Your task to perform on an android device: find snoozed emails in the gmail app Image 0: 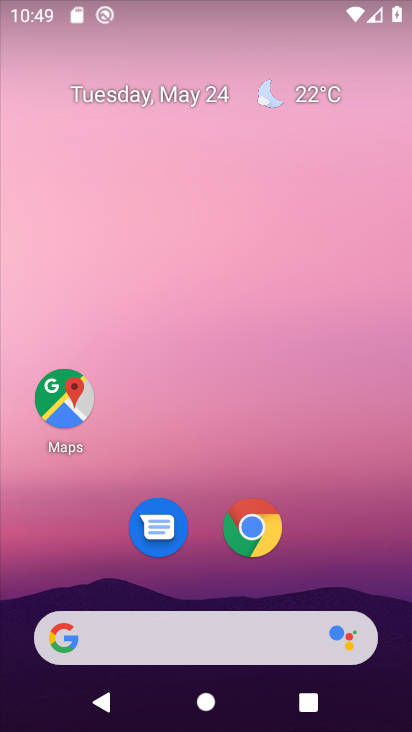
Step 0: press home button
Your task to perform on an android device: find snoozed emails in the gmail app Image 1: 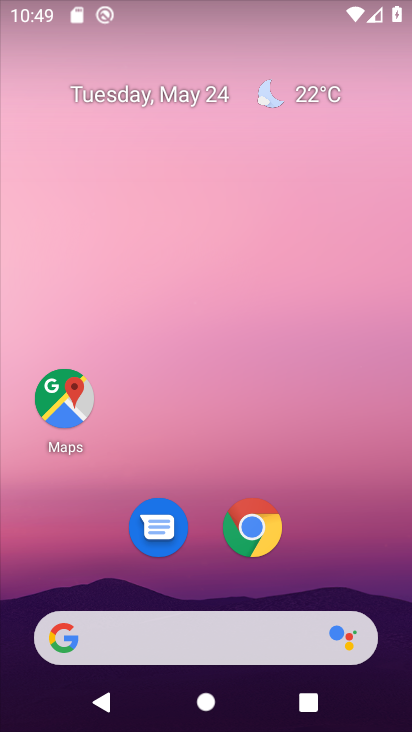
Step 1: drag from (189, 626) to (351, 129)
Your task to perform on an android device: find snoozed emails in the gmail app Image 2: 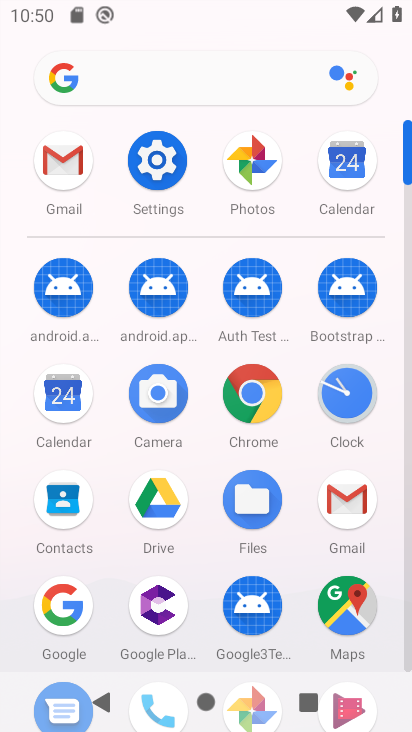
Step 2: click (61, 171)
Your task to perform on an android device: find snoozed emails in the gmail app Image 3: 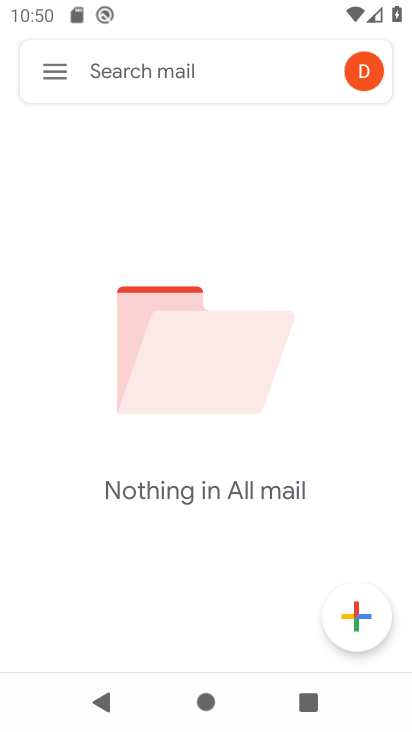
Step 3: click (52, 70)
Your task to perform on an android device: find snoozed emails in the gmail app Image 4: 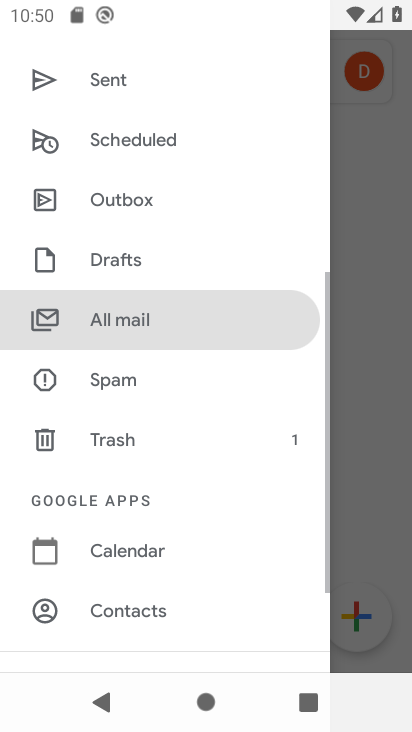
Step 4: drag from (236, 193) to (186, 542)
Your task to perform on an android device: find snoozed emails in the gmail app Image 5: 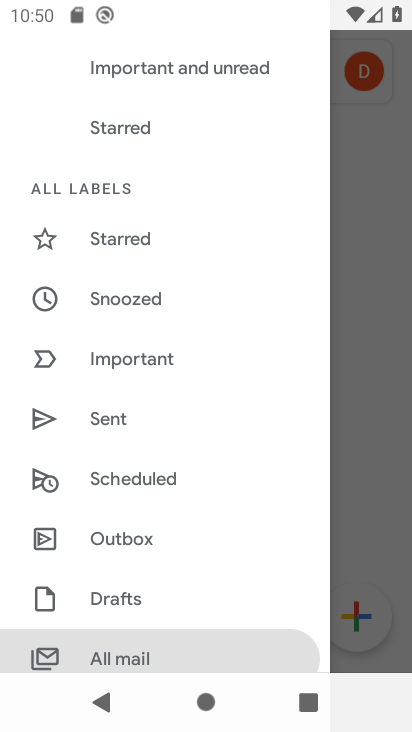
Step 5: click (137, 296)
Your task to perform on an android device: find snoozed emails in the gmail app Image 6: 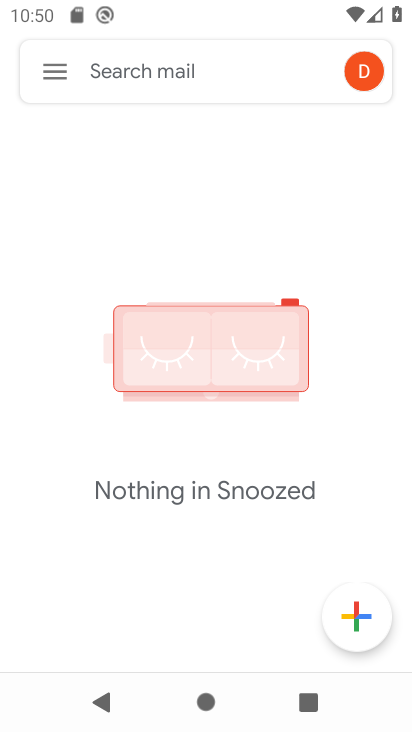
Step 6: task complete